Your task to perform on an android device: turn on the 24-hour format for clock Image 0: 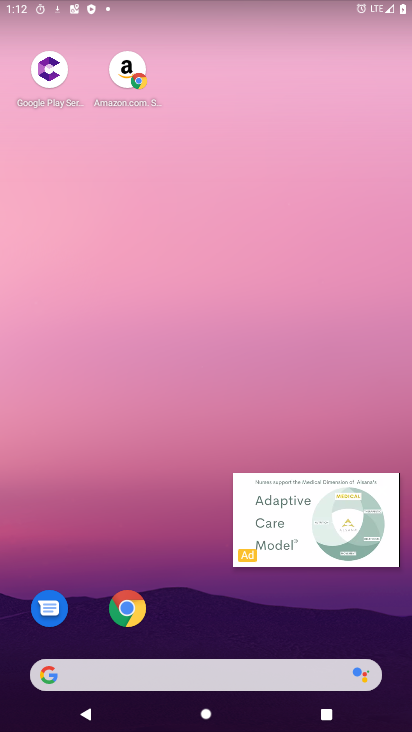
Step 0: click (397, 489)
Your task to perform on an android device: turn on the 24-hour format for clock Image 1: 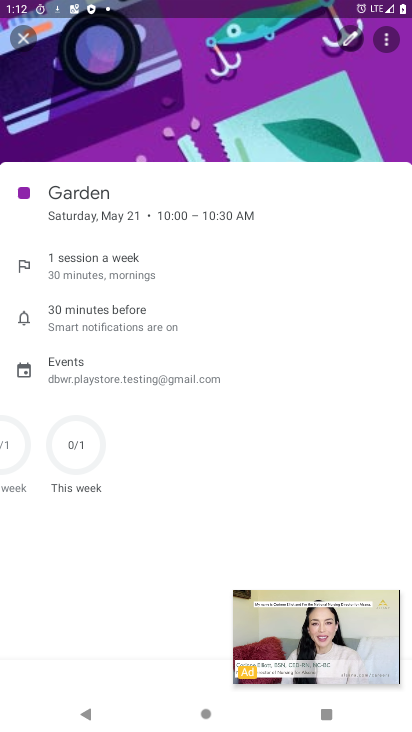
Step 1: press home button
Your task to perform on an android device: turn on the 24-hour format for clock Image 2: 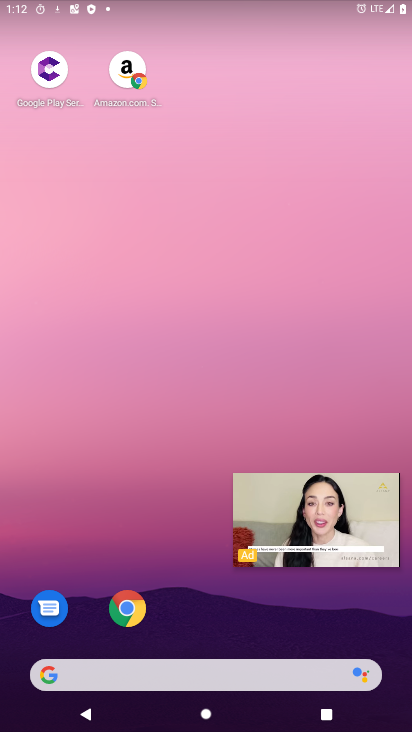
Step 2: drag from (258, 678) to (174, 252)
Your task to perform on an android device: turn on the 24-hour format for clock Image 3: 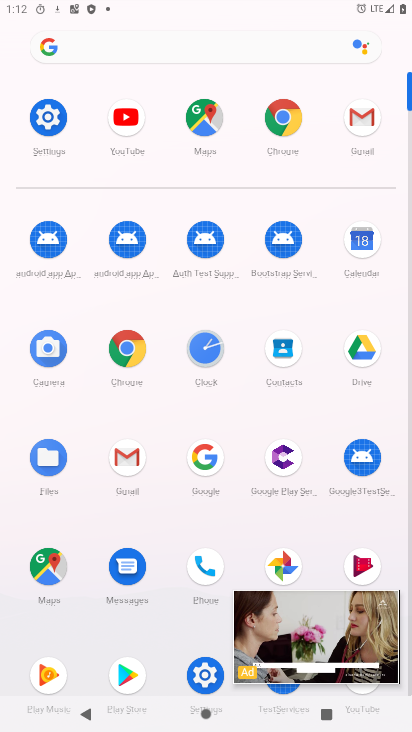
Step 3: click (388, 612)
Your task to perform on an android device: turn on the 24-hour format for clock Image 4: 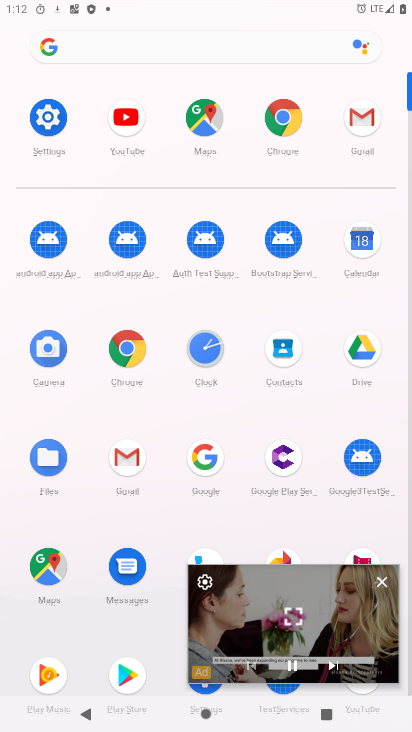
Step 4: click (388, 584)
Your task to perform on an android device: turn on the 24-hour format for clock Image 5: 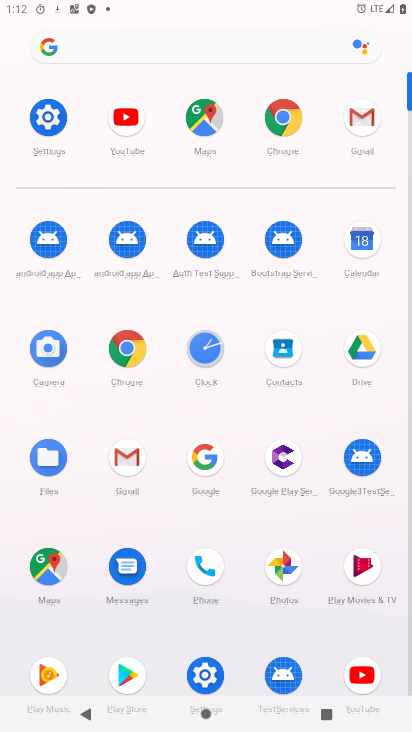
Step 5: click (200, 354)
Your task to perform on an android device: turn on the 24-hour format for clock Image 6: 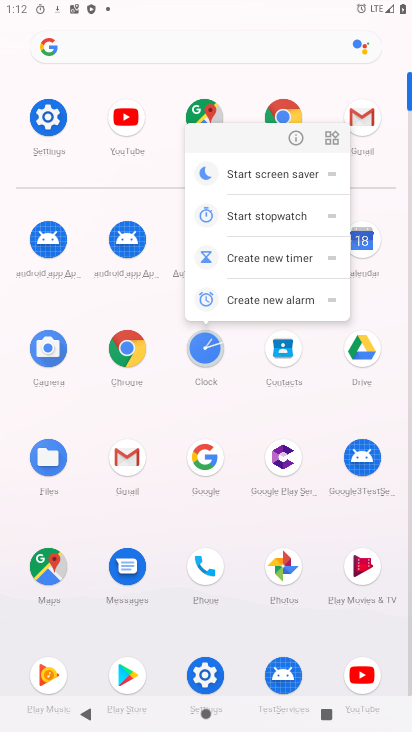
Step 6: click (192, 360)
Your task to perform on an android device: turn on the 24-hour format for clock Image 7: 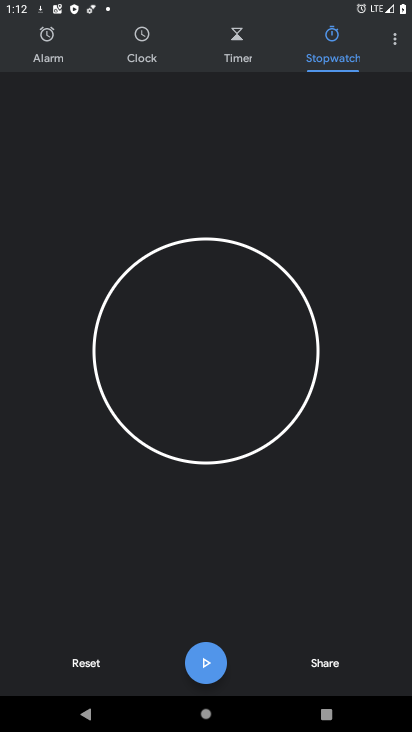
Step 7: click (391, 44)
Your task to perform on an android device: turn on the 24-hour format for clock Image 8: 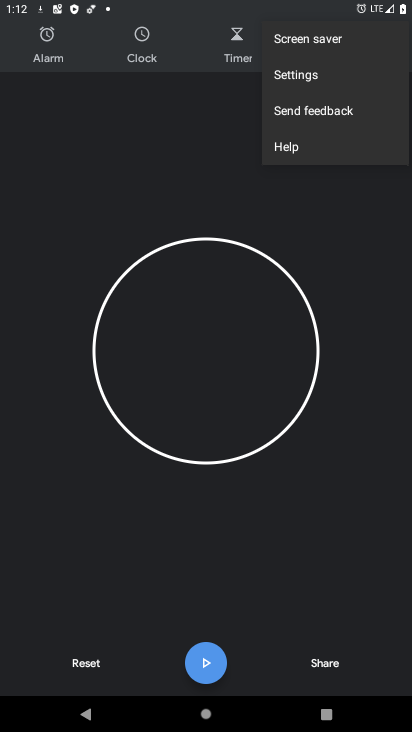
Step 8: click (311, 67)
Your task to perform on an android device: turn on the 24-hour format for clock Image 9: 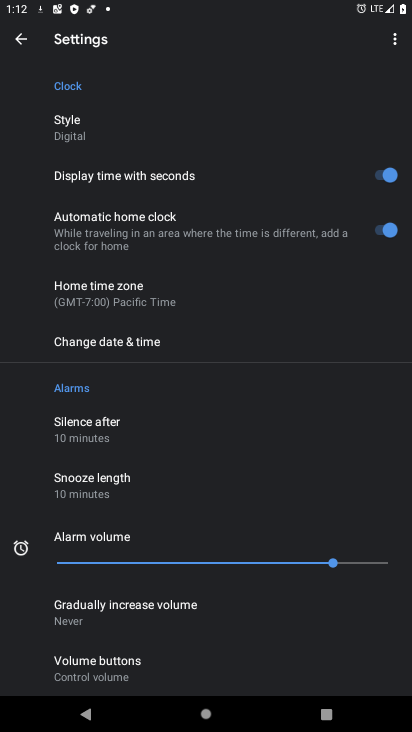
Step 9: click (164, 342)
Your task to perform on an android device: turn on the 24-hour format for clock Image 10: 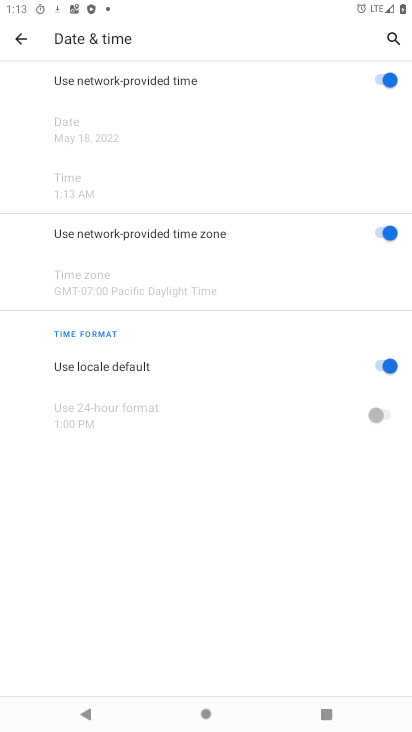
Step 10: click (373, 368)
Your task to perform on an android device: turn on the 24-hour format for clock Image 11: 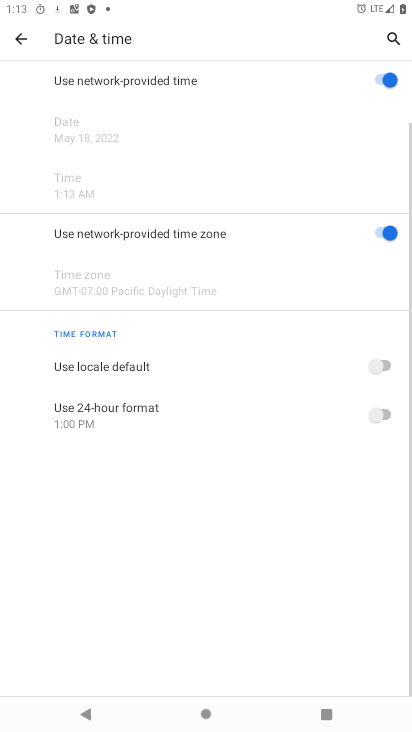
Step 11: click (386, 418)
Your task to perform on an android device: turn on the 24-hour format for clock Image 12: 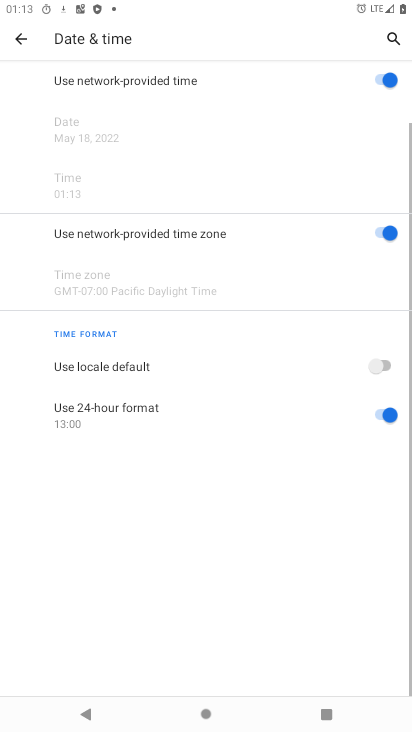
Step 12: task complete